Your task to perform on an android device: Open Chrome and go to settings Image 0: 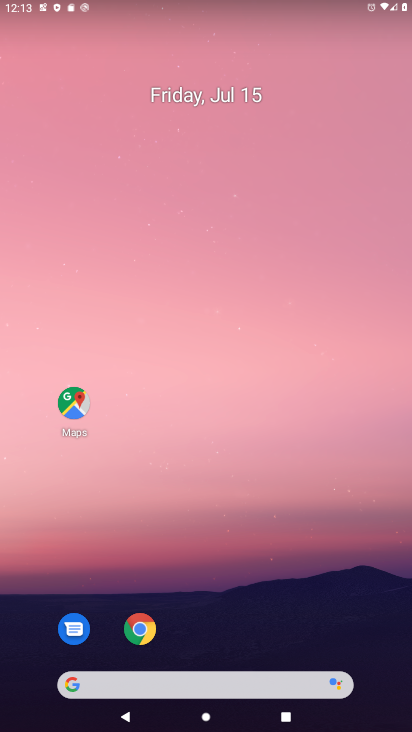
Step 0: press home button
Your task to perform on an android device: Open Chrome and go to settings Image 1: 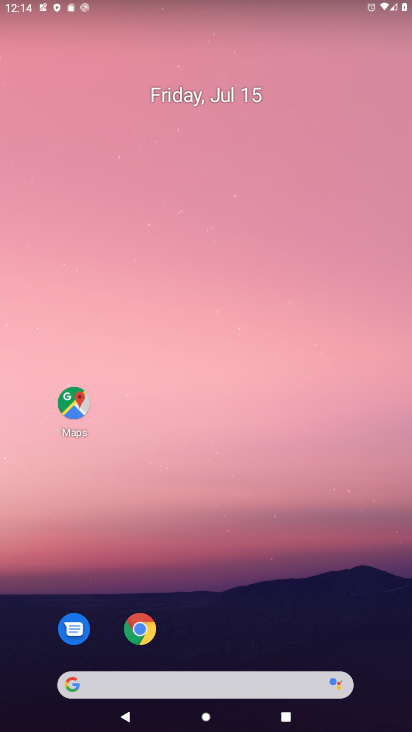
Step 1: drag from (249, 593) to (222, 85)
Your task to perform on an android device: Open Chrome and go to settings Image 2: 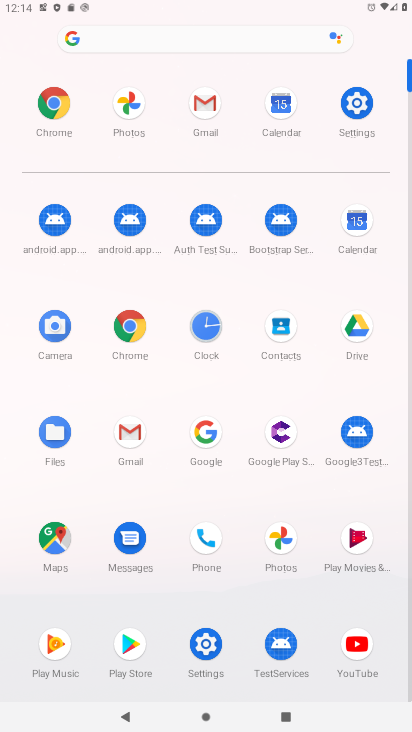
Step 2: click (58, 105)
Your task to perform on an android device: Open Chrome and go to settings Image 3: 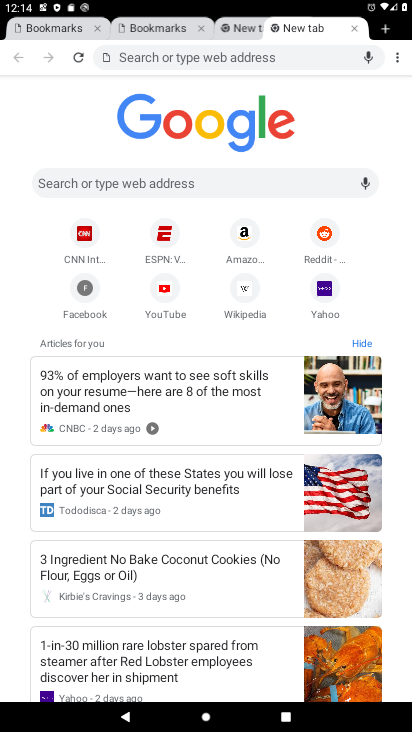
Step 3: task complete